Your task to perform on an android device: change keyboard looks Image 0: 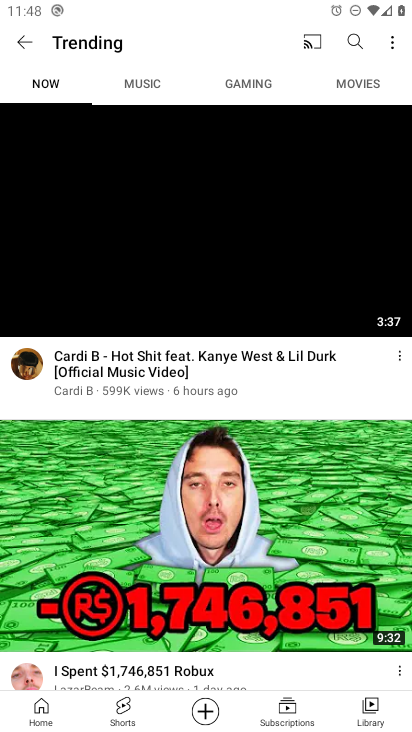
Step 0: press home button
Your task to perform on an android device: change keyboard looks Image 1: 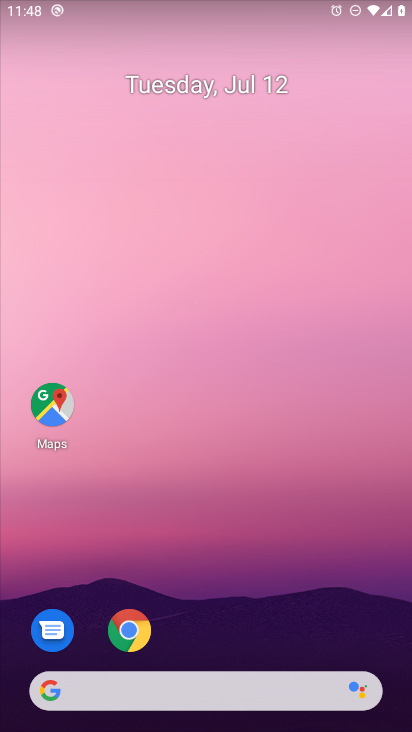
Step 1: drag from (268, 586) to (204, 35)
Your task to perform on an android device: change keyboard looks Image 2: 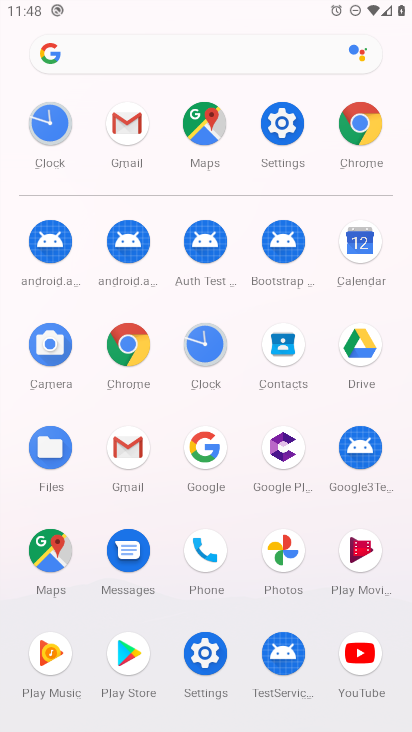
Step 2: click (289, 131)
Your task to perform on an android device: change keyboard looks Image 3: 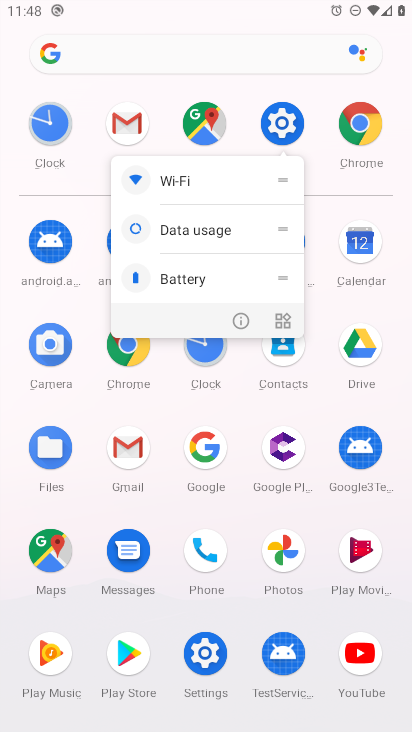
Step 3: click (277, 128)
Your task to perform on an android device: change keyboard looks Image 4: 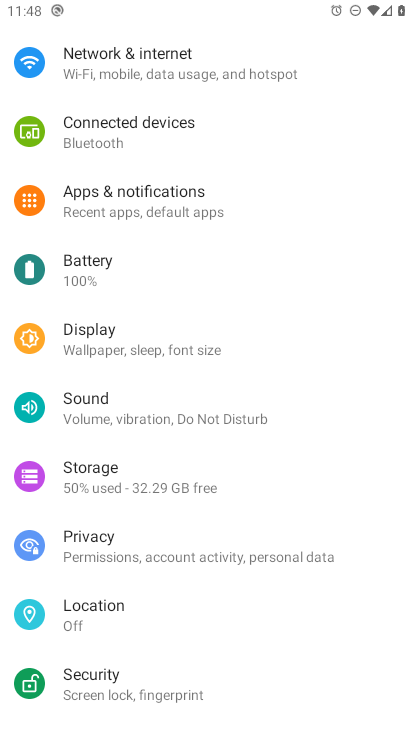
Step 4: drag from (130, 631) to (187, 332)
Your task to perform on an android device: change keyboard looks Image 5: 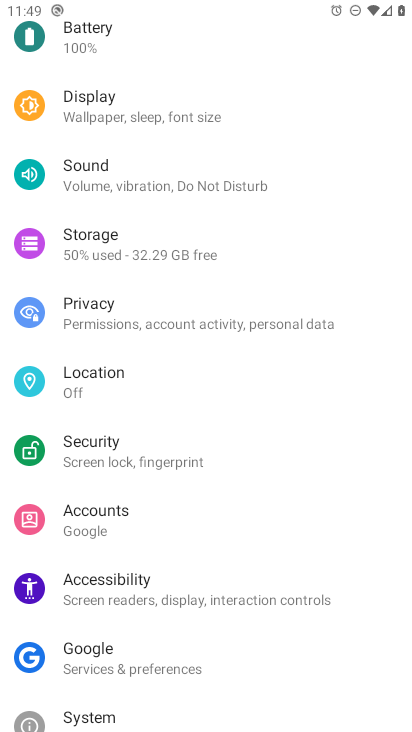
Step 5: click (183, 468)
Your task to perform on an android device: change keyboard looks Image 6: 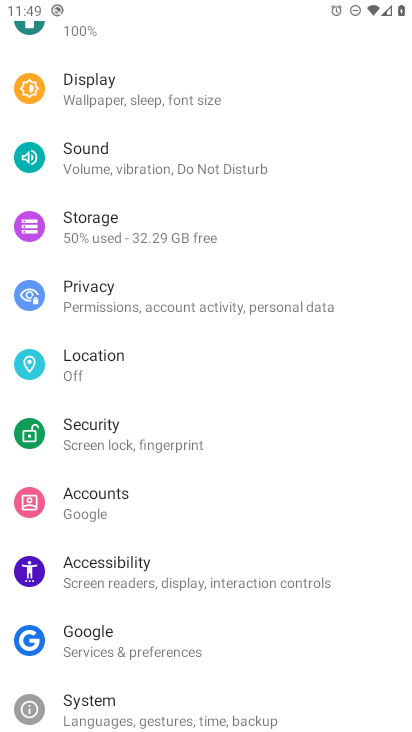
Step 6: click (96, 710)
Your task to perform on an android device: change keyboard looks Image 7: 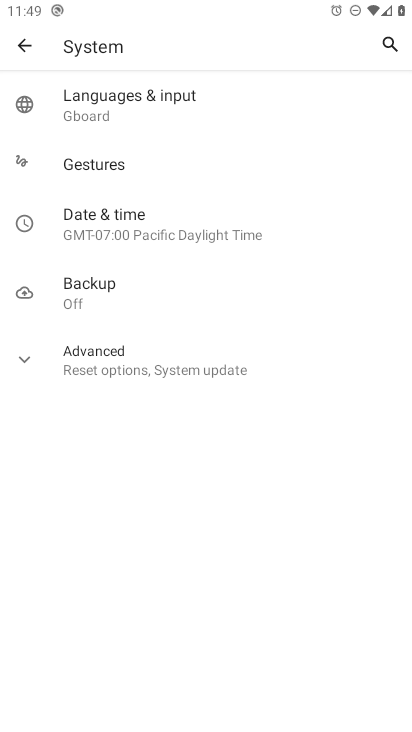
Step 7: click (99, 98)
Your task to perform on an android device: change keyboard looks Image 8: 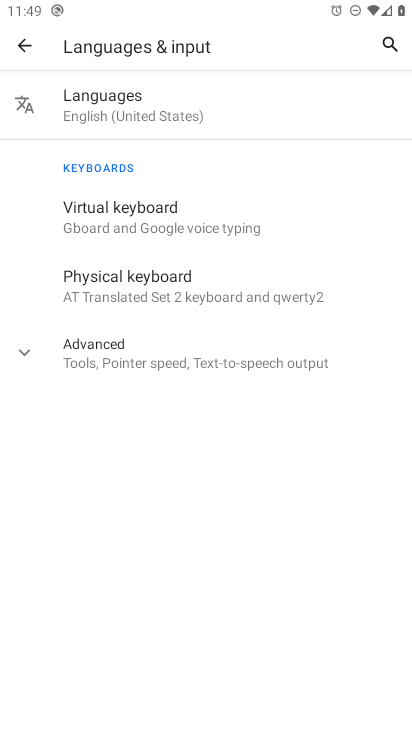
Step 8: click (114, 208)
Your task to perform on an android device: change keyboard looks Image 9: 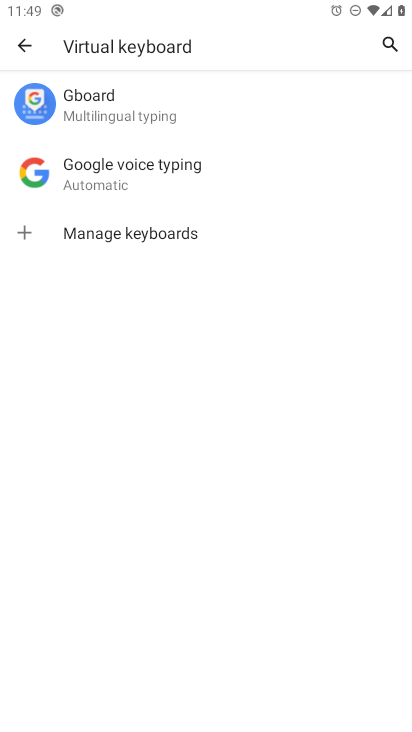
Step 9: click (104, 107)
Your task to perform on an android device: change keyboard looks Image 10: 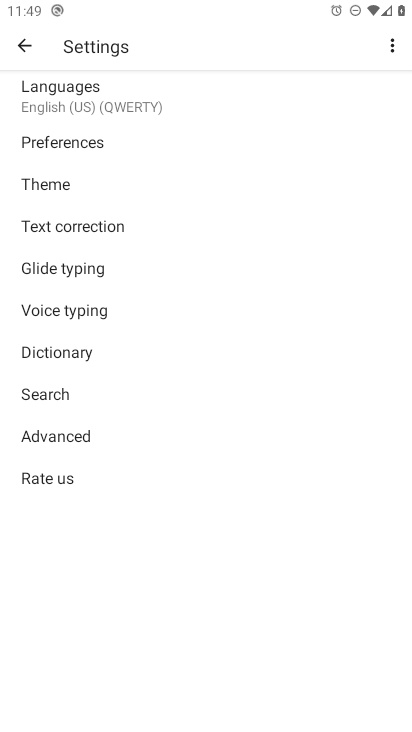
Step 10: click (43, 183)
Your task to perform on an android device: change keyboard looks Image 11: 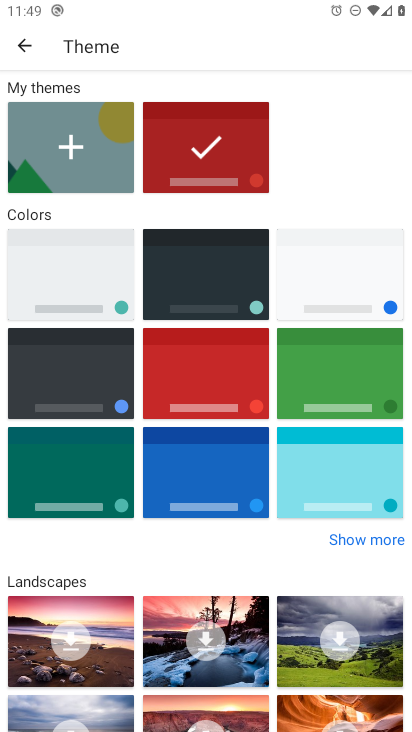
Step 11: click (208, 292)
Your task to perform on an android device: change keyboard looks Image 12: 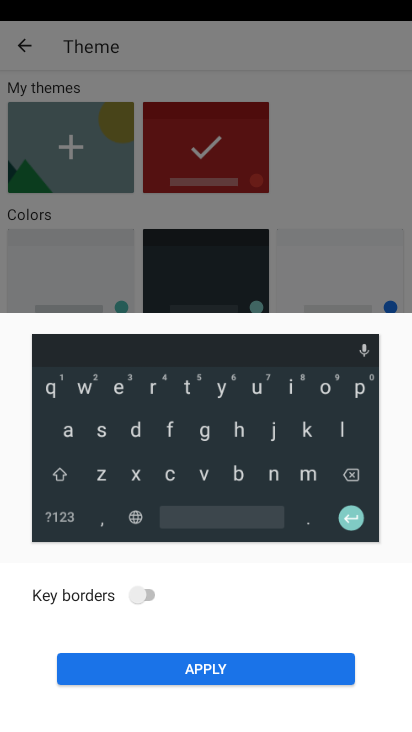
Step 12: click (270, 680)
Your task to perform on an android device: change keyboard looks Image 13: 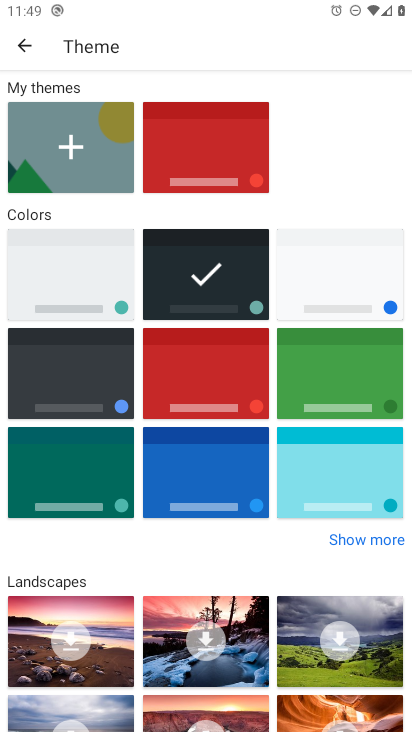
Step 13: task complete